Your task to perform on an android device: Open Chrome and go to the settings page Image 0: 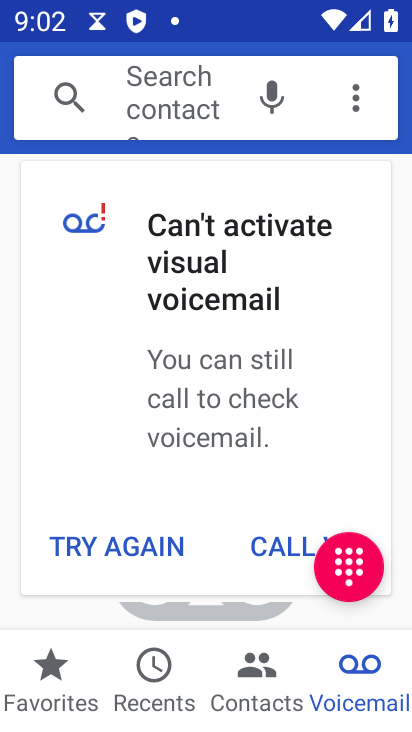
Step 0: press back button
Your task to perform on an android device: Open Chrome and go to the settings page Image 1: 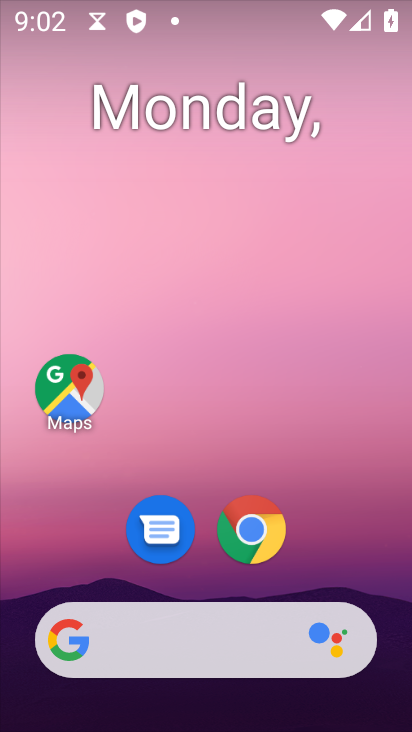
Step 1: drag from (207, 657) to (195, 210)
Your task to perform on an android device: Open Chrome and go to the settings page Image 2: 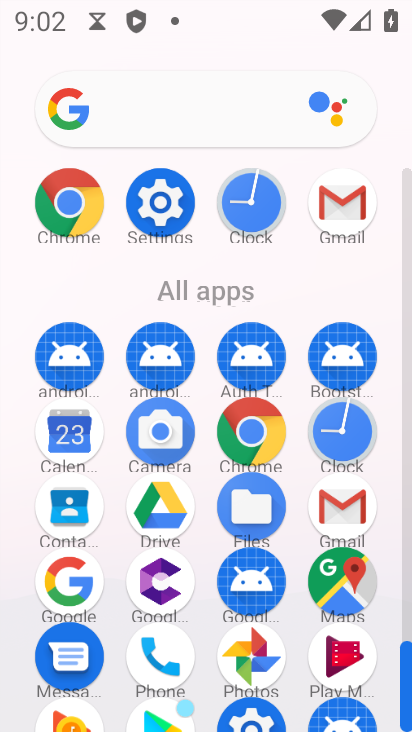
Step 2: click (145, 211)
Your task to perform on an android device: Open Chrome and go to the settings page Image 3: 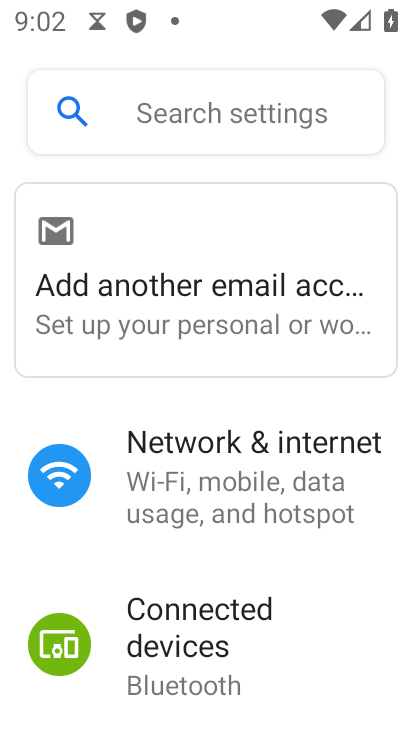
Step 3: press back button
Your task to perform on an android device: Open Chrome and go to the settings page Image 4: 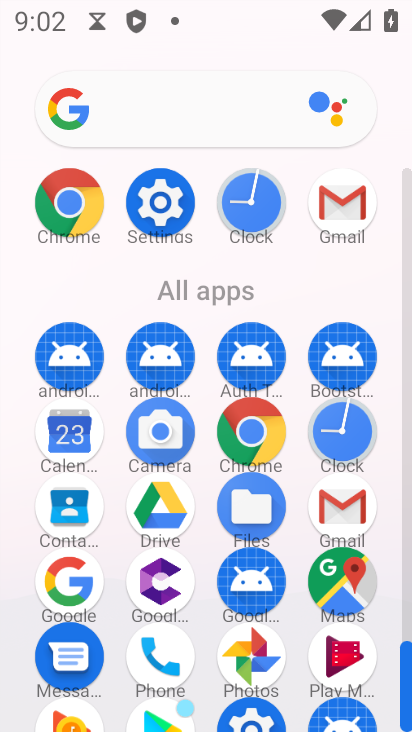
Step 4: click (150, 215)
Your task to perform on an android device: Open Chrome and go to the settings page Image 5: 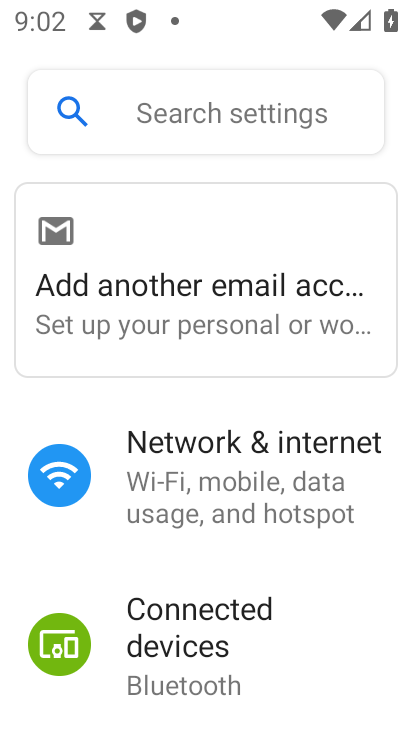
Step 5: press back button
Your task to perform on an android device: Open Chrome and go to the settings page Image 6: 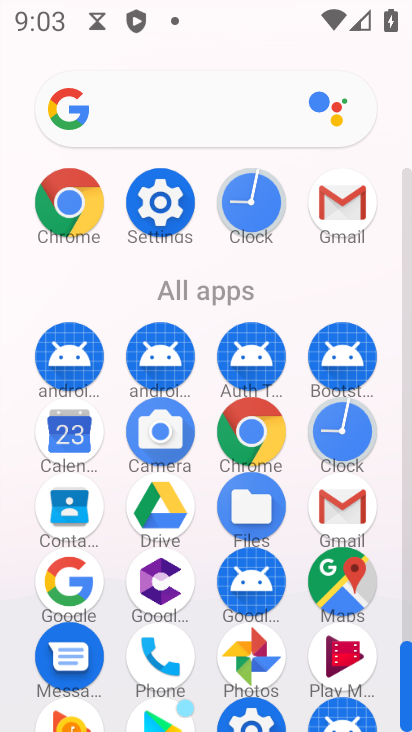
Step 6: click (147, 223)
Your task to perform on an android device: Open Chrome and go to the settings page Image 7: 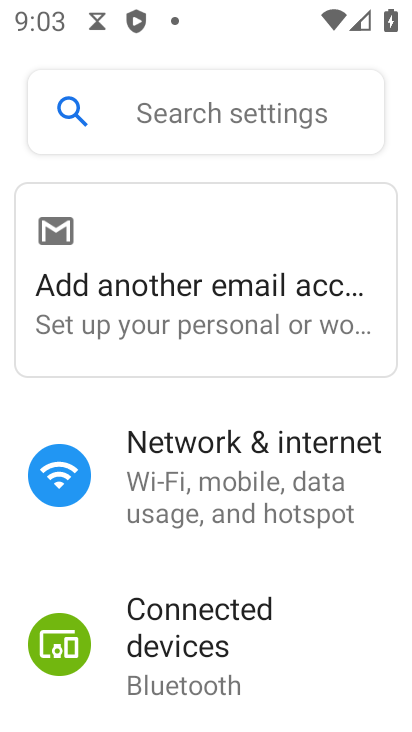
Step 7: press home button
Your task to perform on an android device: Open Chrome and go to the settings page Image 8: 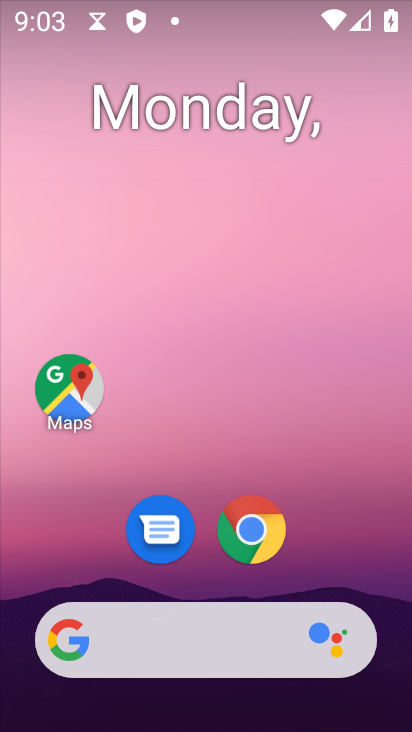
Step 8: drag from (217, 673) to (167, 316)
Your task to perform on an android device: Open Chrome and go to the settings page Image 9: 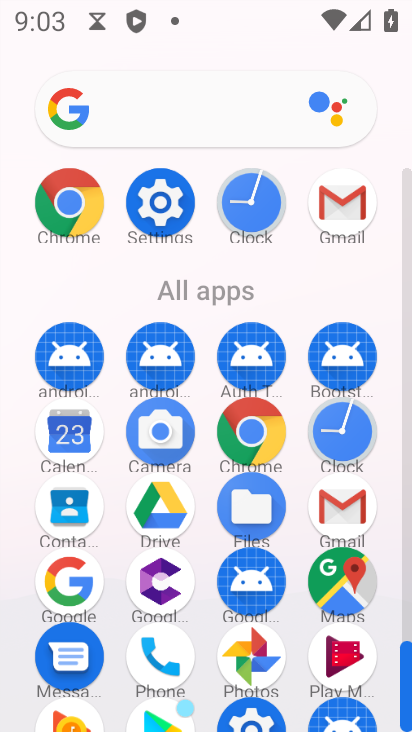
Step 9: click (160, 199)
Your task to perform on an android device: Open Chrome and go to the settings page Image 10: 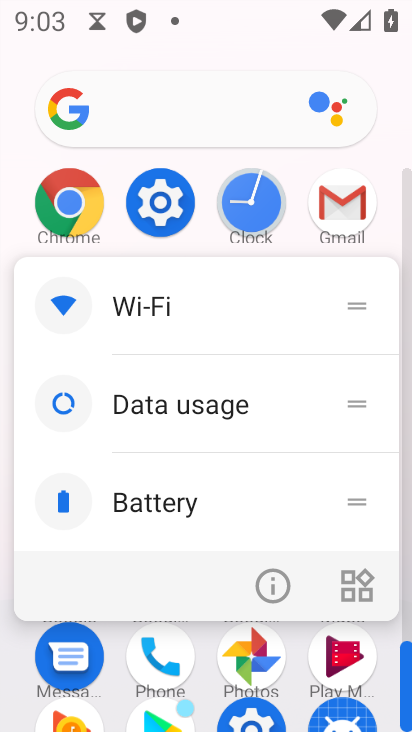
Step 10: click (60, 195)
Your task to perform on an android device: Open Chrome and go to the settings page Image 11: 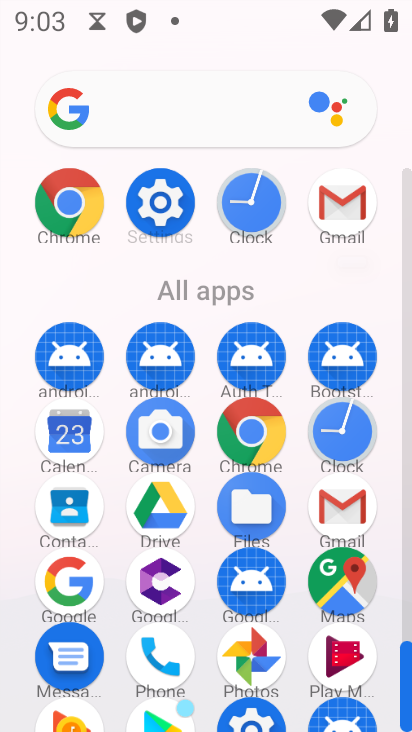
Step 11: click (63, 197)
Your task to perform on an android device: Open Chrome and go to the settings page Image 12: 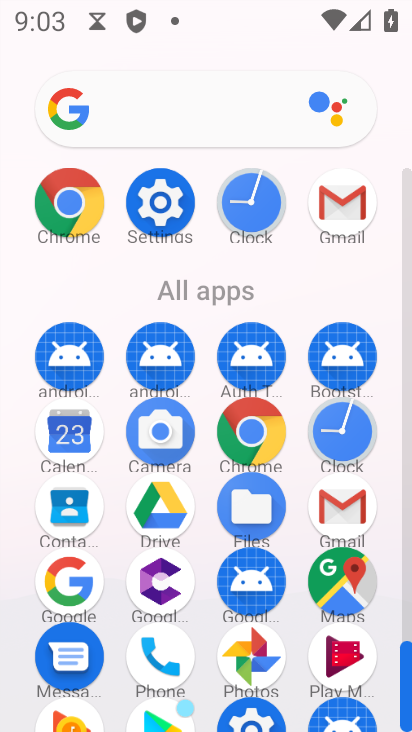
Step 12: click (76, 200)
Your task to perform on an android device: Open Chrome and go to the settings page Image 13: 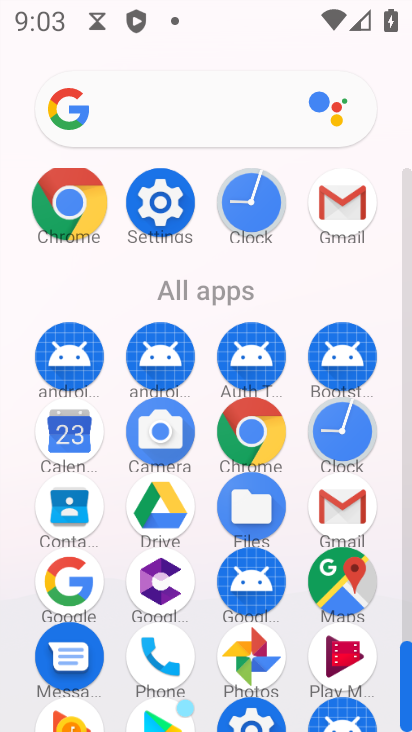
Step 13: click (80, 199)
Your task to perform on an android device: Open Chrome and go to the settings page Image 14: 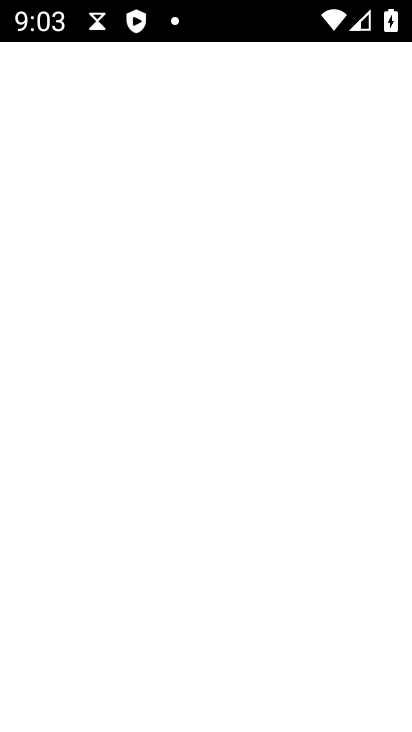
Step 14: click (90, 198)
Your task to perform on an android device: Open Chrome and go to the settings page Image 15: 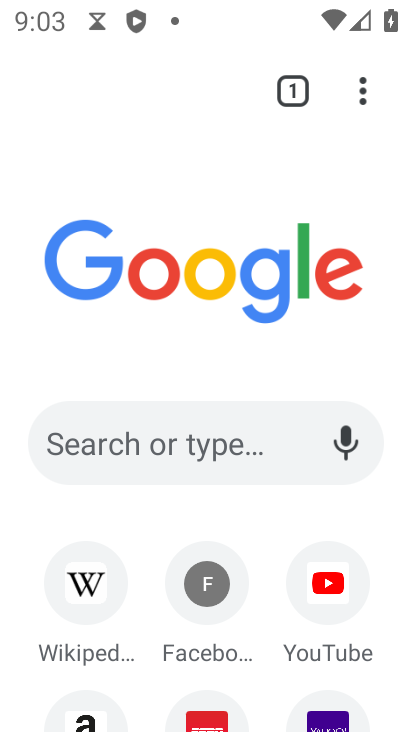
Step 15: drag from (367, 99) to (123, 563)
Your task to perform on an android device: Open Chrome and go to the settings page Image 16: 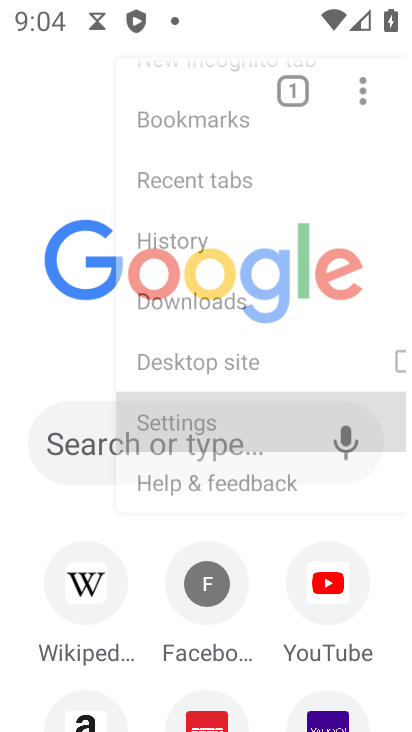
Step 16: click (123, 563)
Your task to perform on an android device: Open Chrome and go to the settings page Image 17: 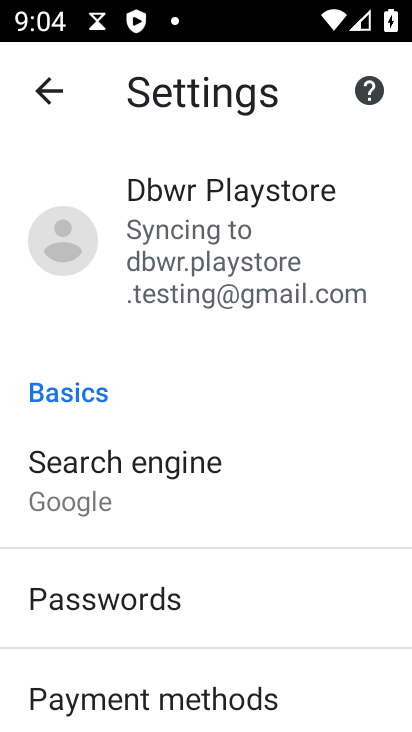
Step 17: task complete